Your task to perform on an android device: open app "Reddit" (install if not already installed) Image 0: 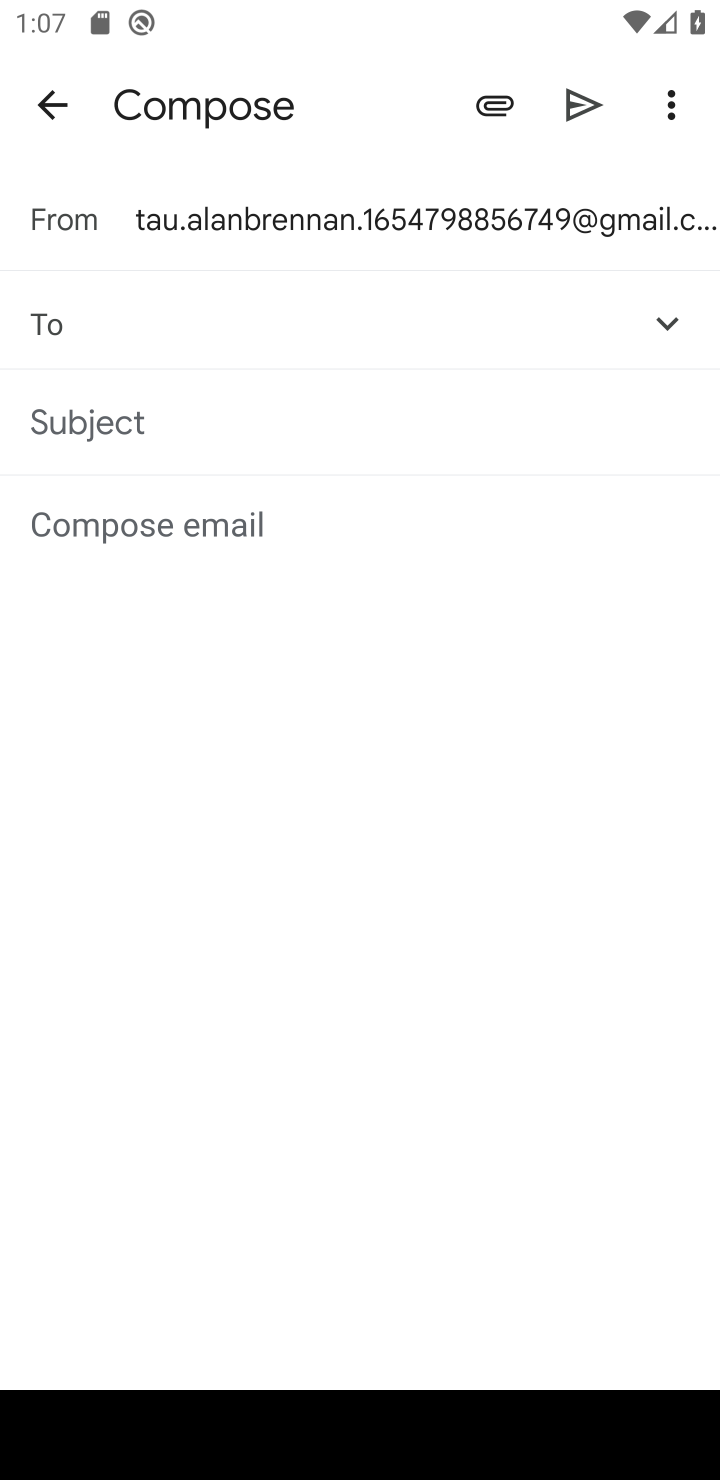
Step 0: press home button
Your task to perform on an android device: open app "Reddit" (install if not already installed) Image 1: 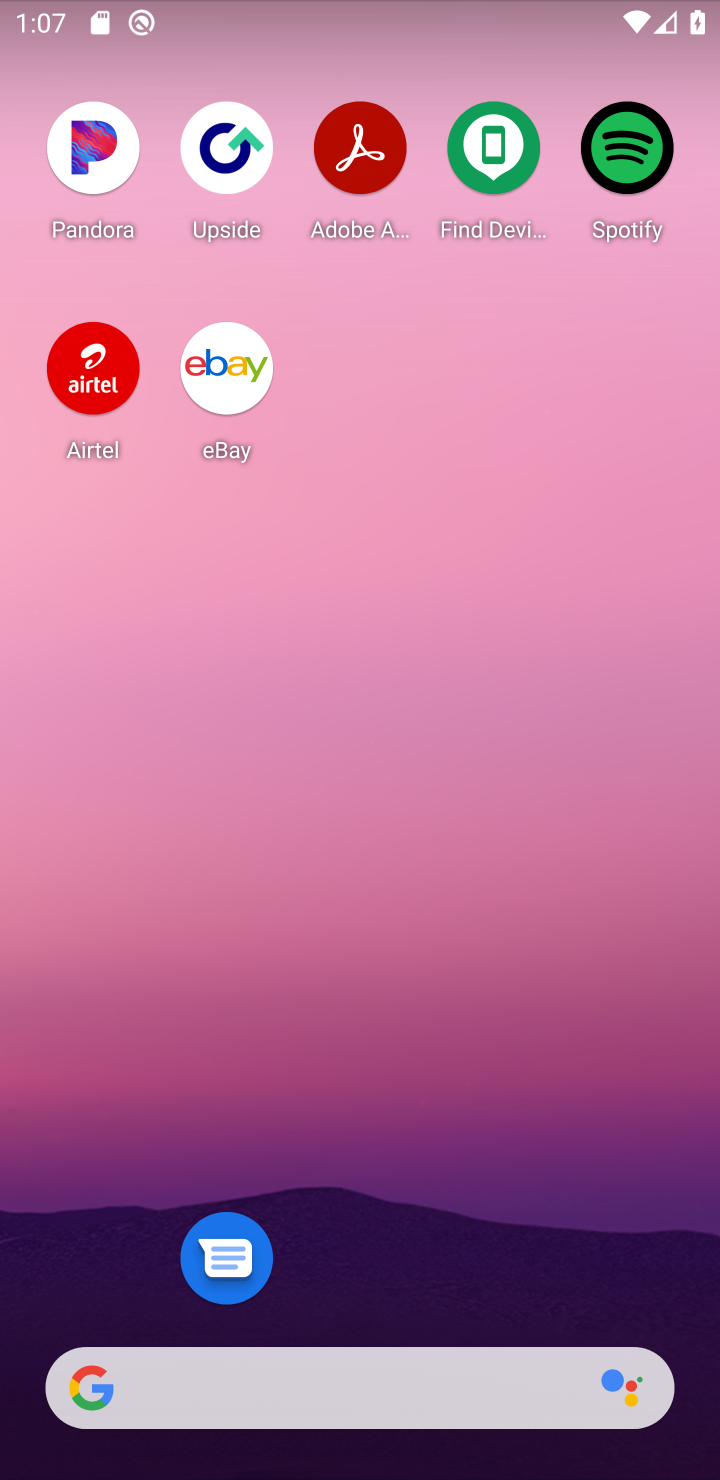
Step 1: drag from (122, 465) to (619, 478)
Your task to perform on an android device: open app "Reddit" (install if not already installed) Image 2: 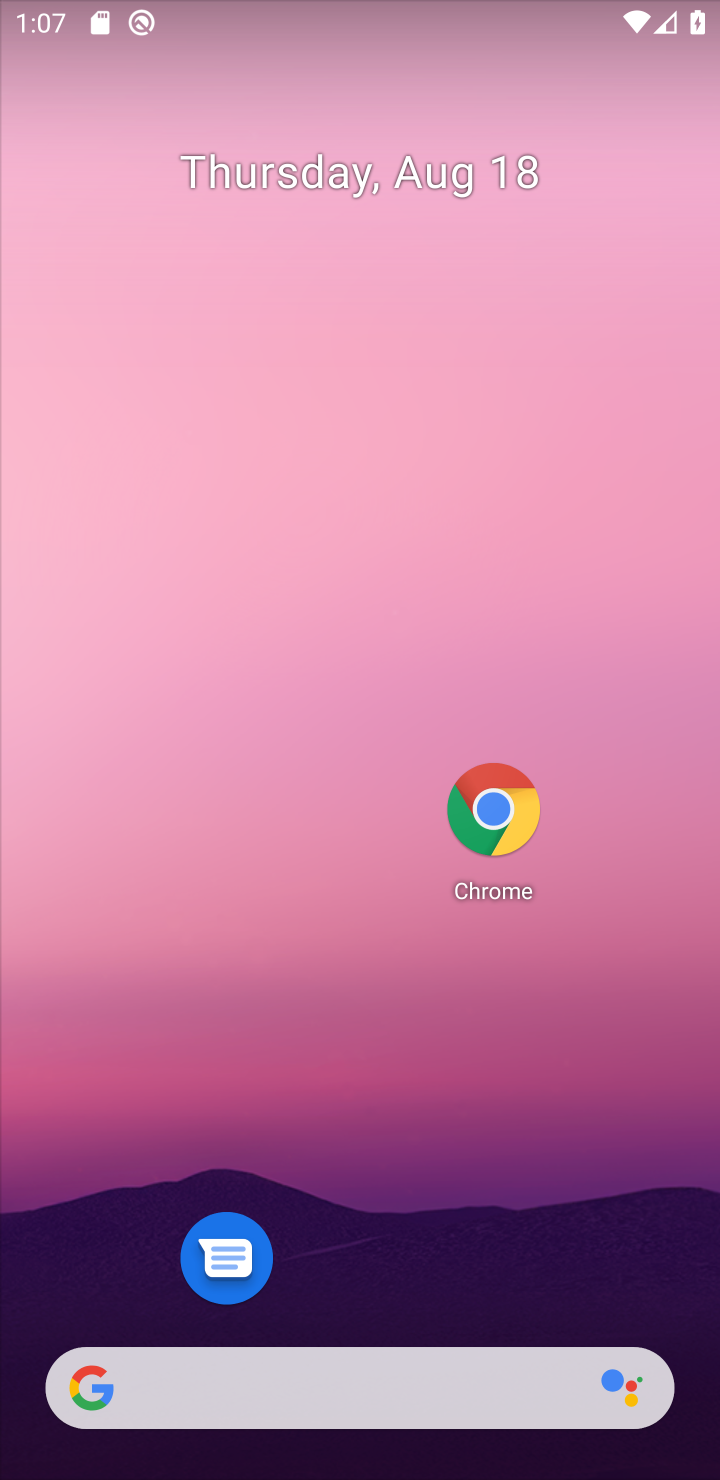
Step 2: drag from (462, 1329) to (443, 407)
Your task to perform on an android device: open app "Reddit" (install if not already installed) Image 3: 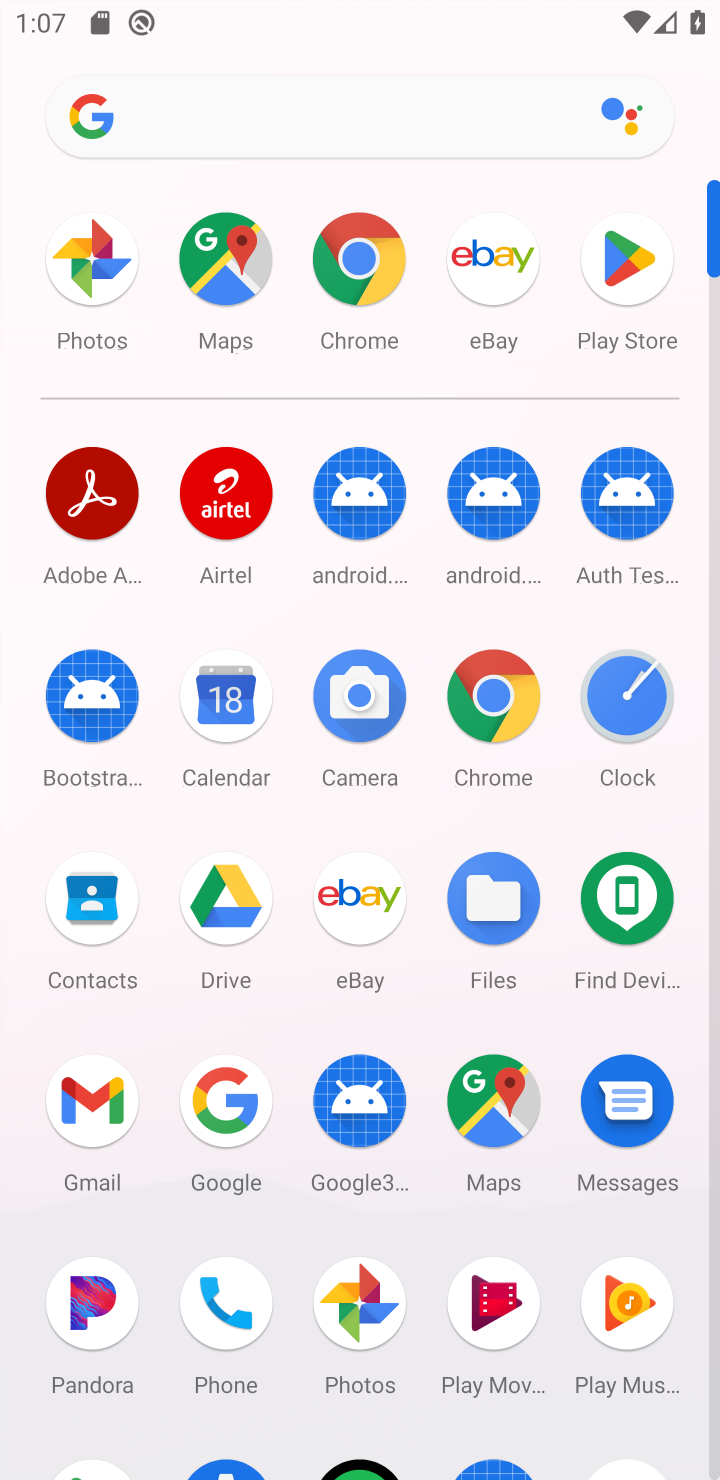
Step 3: click (644, 247)
Your task to perform on an android device: open app "Reddit" (install if not already installed) Image 4: 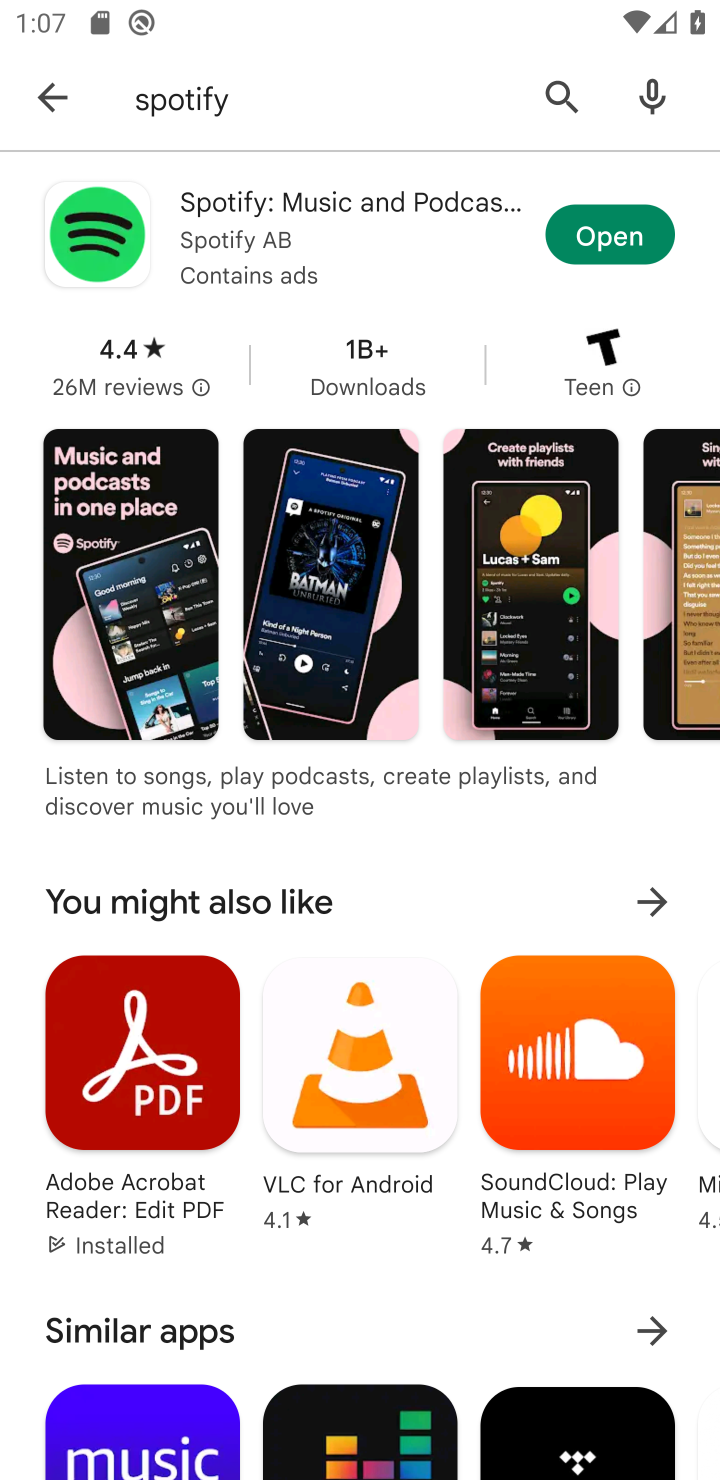
Step 4: click (65, 108)
Your task to perform on an android device: open app "Reddit" (install if not already installed) Image 5: 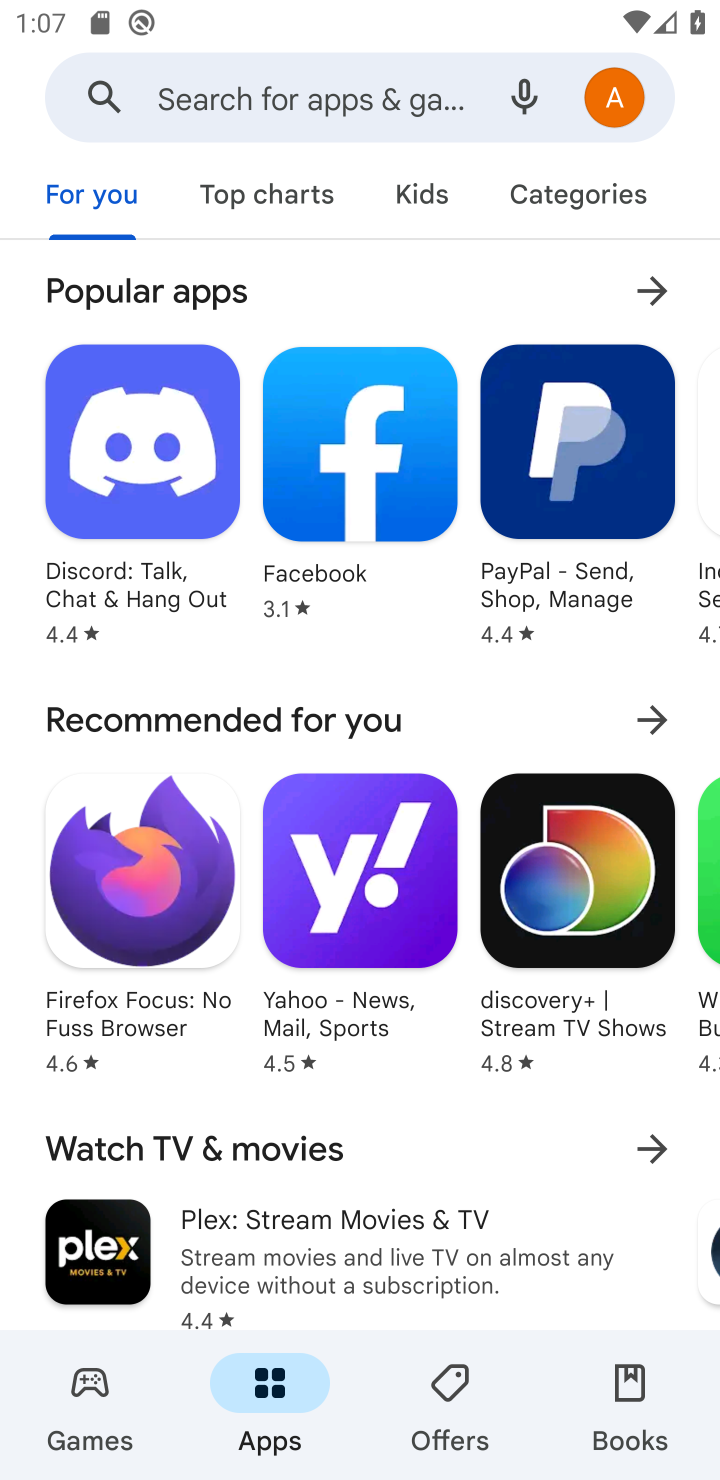
Step 5: click (386, 100)
Your task to perform on an android device: open app "Reddit" (install if not already installed) Image 6: 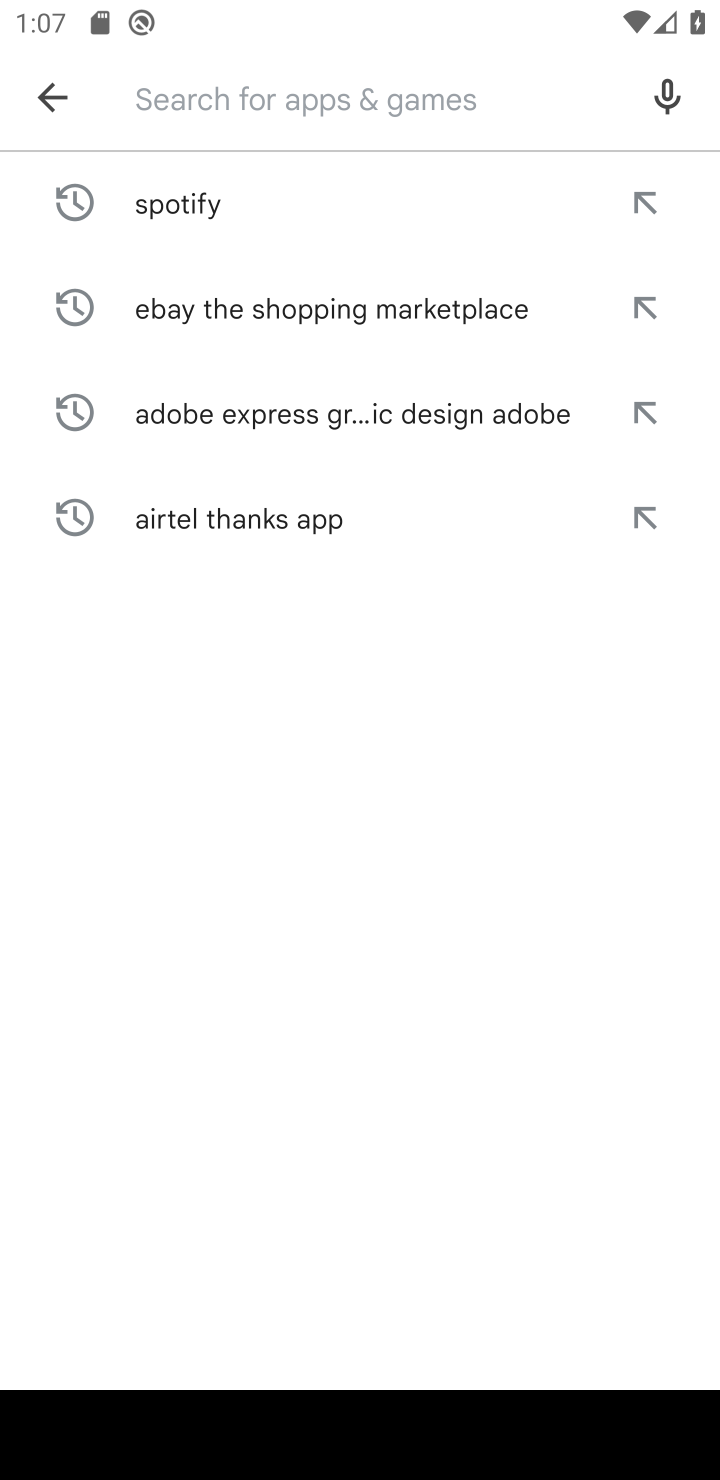
Step 6: type "Reddit "
Your task to perform on an android device: open app "Reddit" (install if not already installed) Image 7: 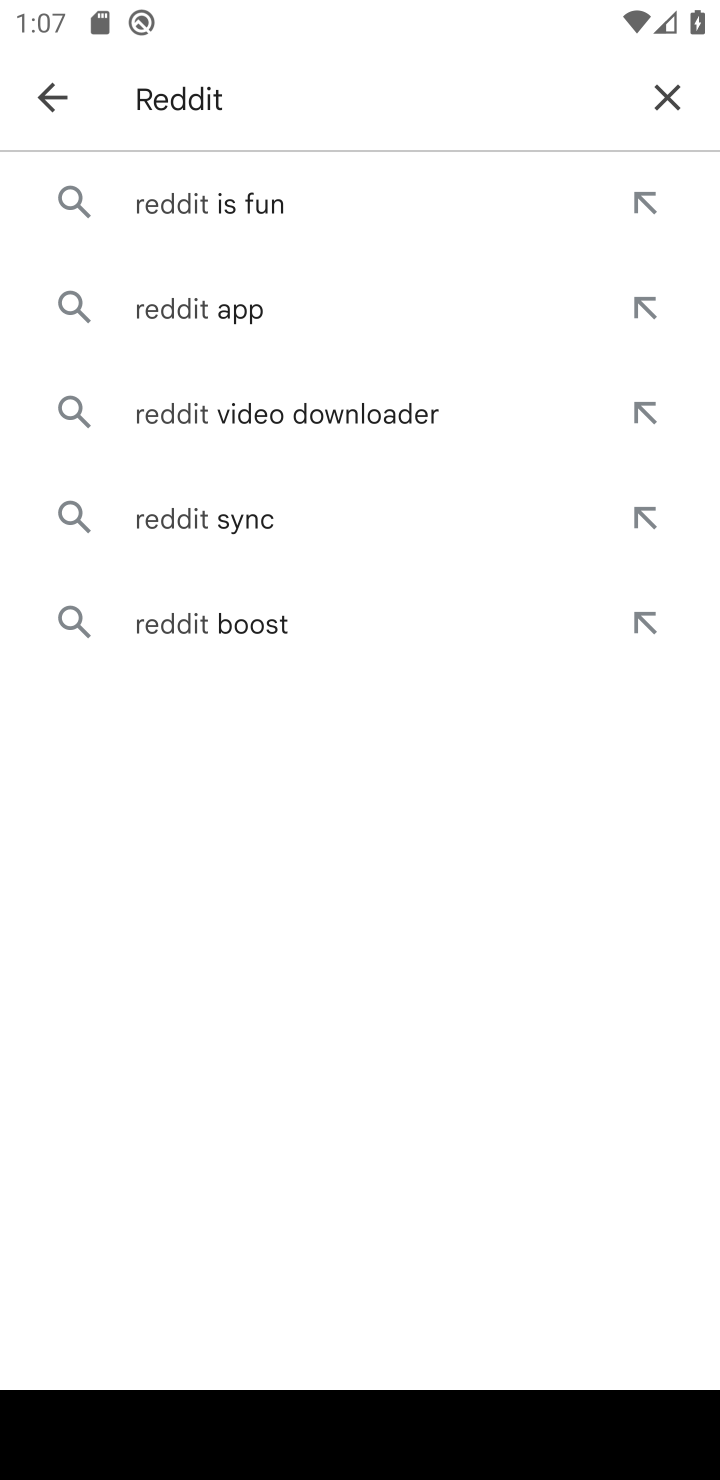
Step 7: click (231, 307)
Your task to perform on an android device: open app "Reddit" (install if not already installed) Image 8: 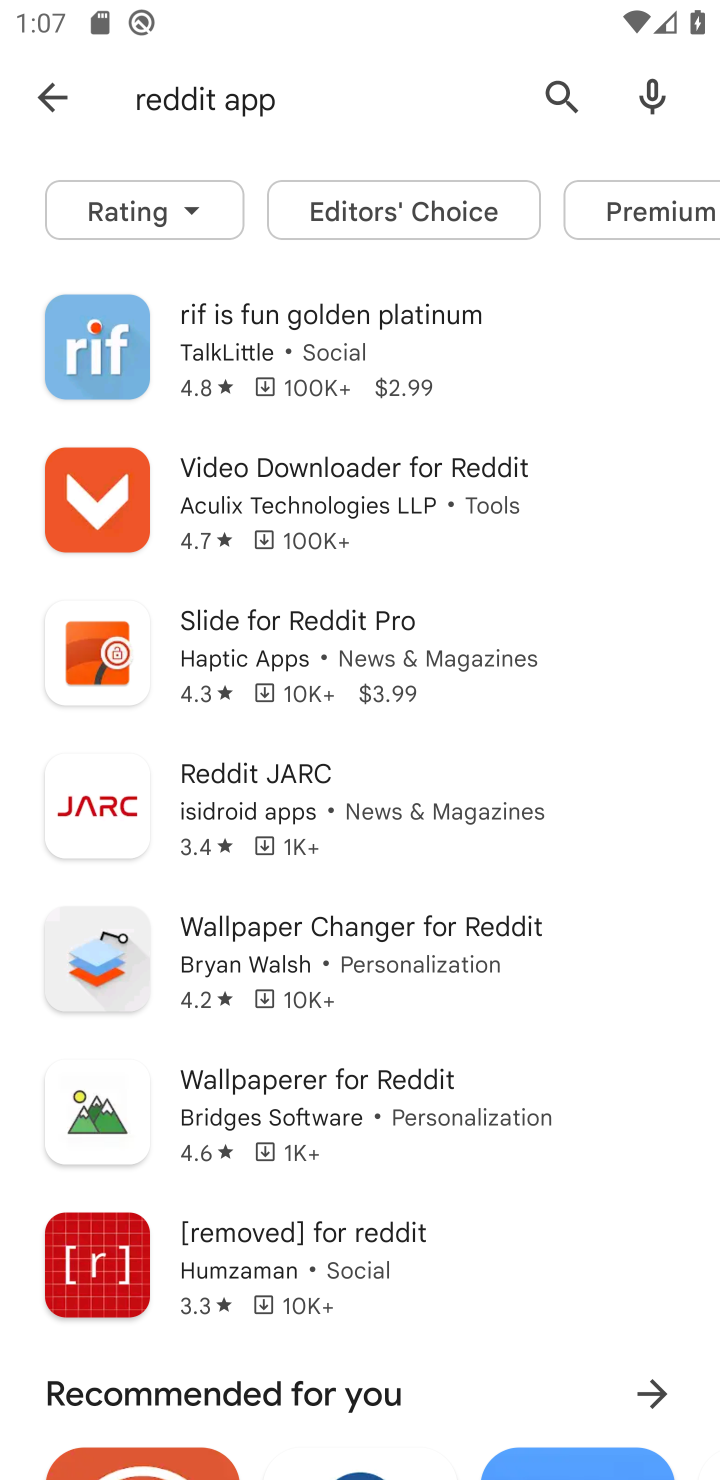
Step 8: drag from (321, 1082) to (396, 430)
Your task to perform on an android device: open app "Reddit" (install if not already installed) Image 9: 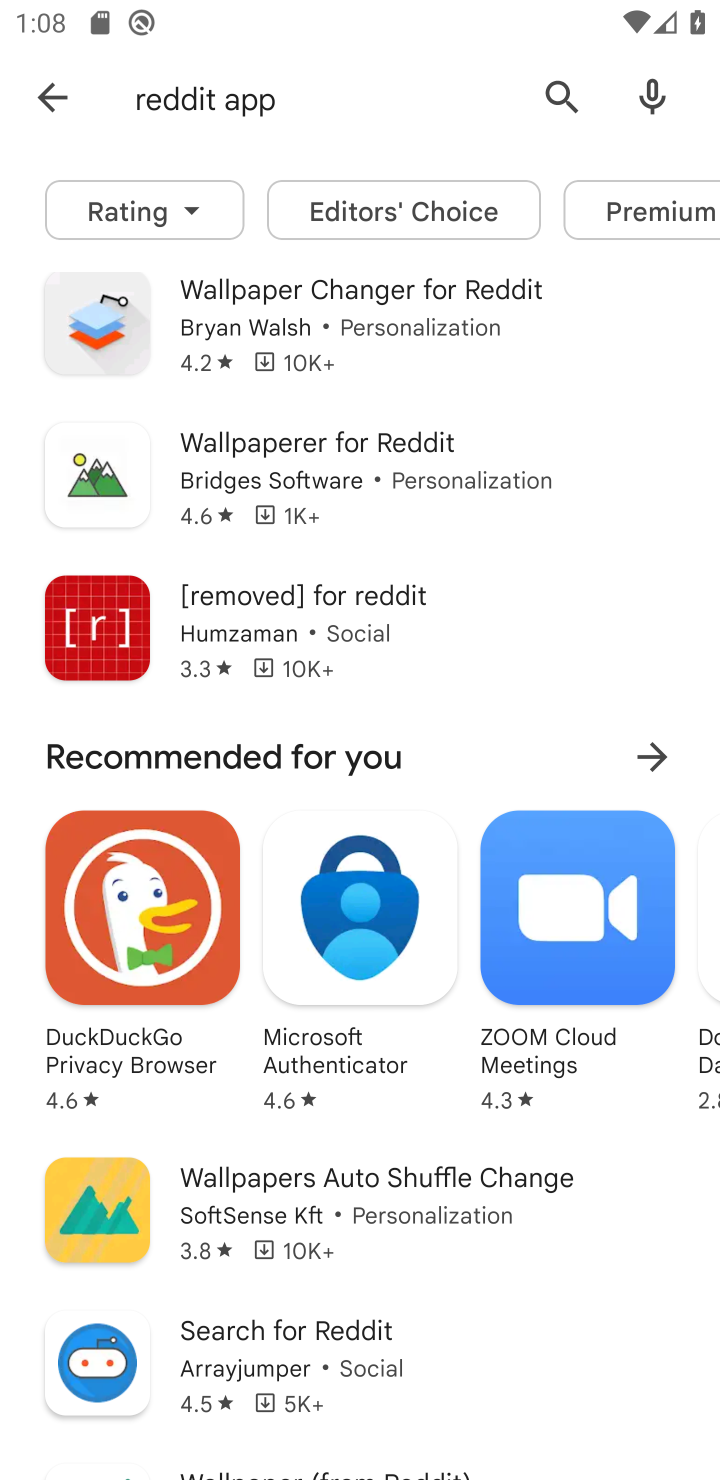
Step 9: drag from (346, 398) to (346, 722)
Your task to perform on an android device: open app "Reddit" (install if not already installed) Image 10: 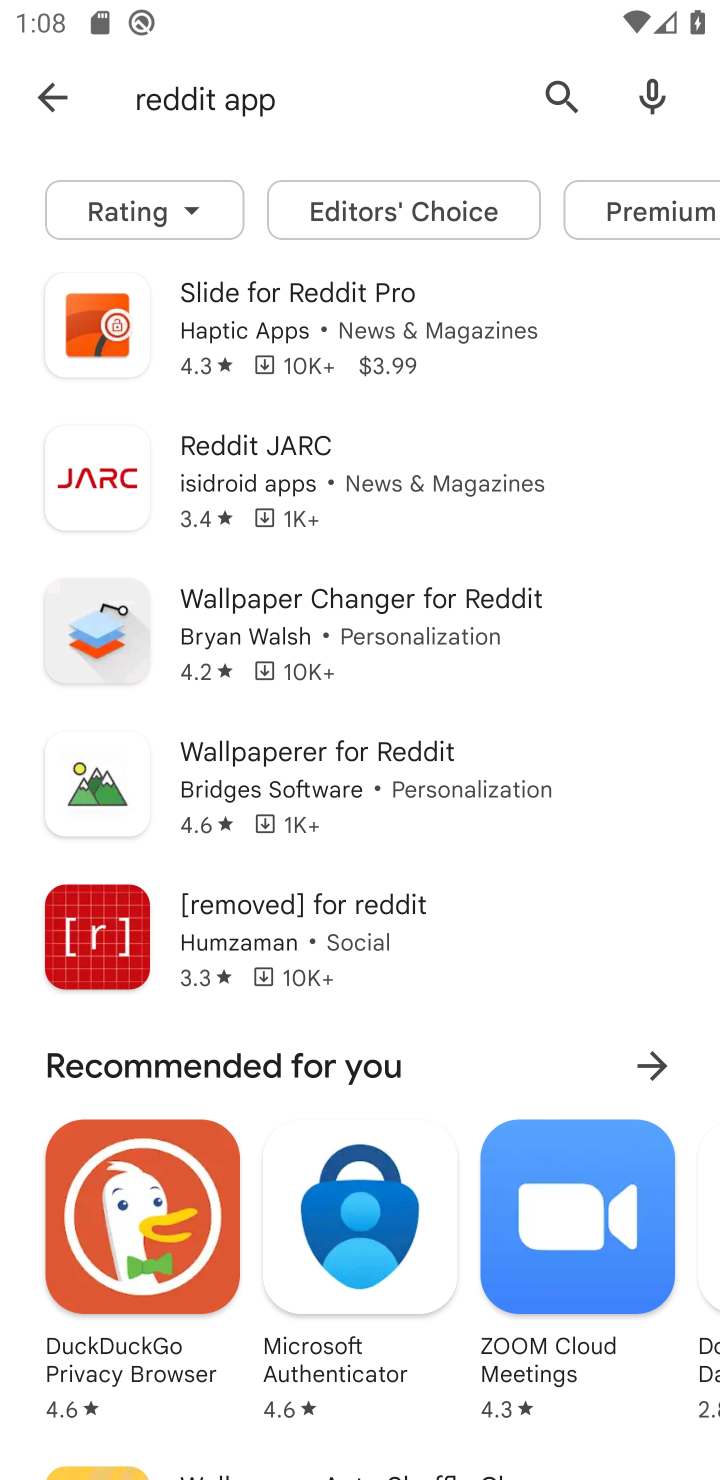
Step 10: click (282, 480)
Your task to perform on an android device: open app "Reddit" (install if not already installed) Image 11: 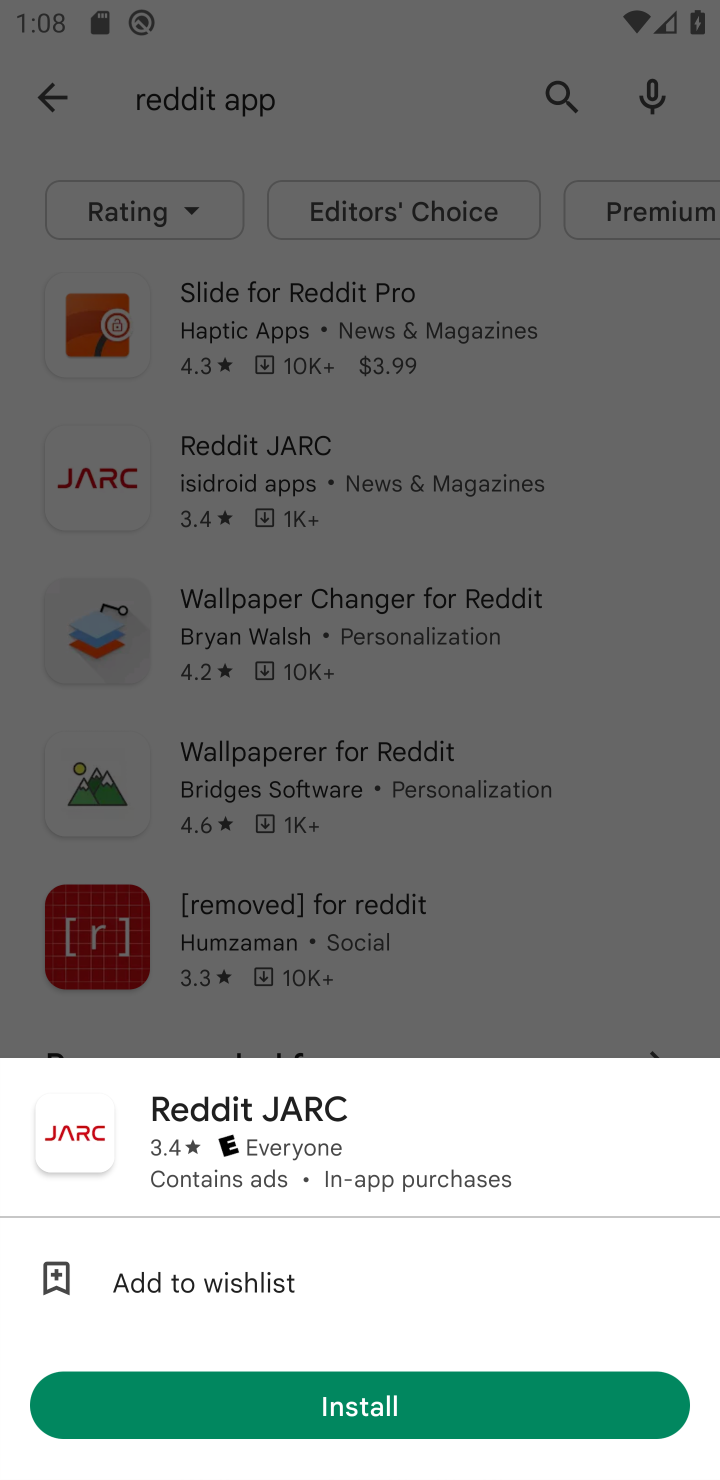
Step 11: click (541, 505)
Your task to perform on an android device: open app "Reddit" (install if not already installed) Image 12: 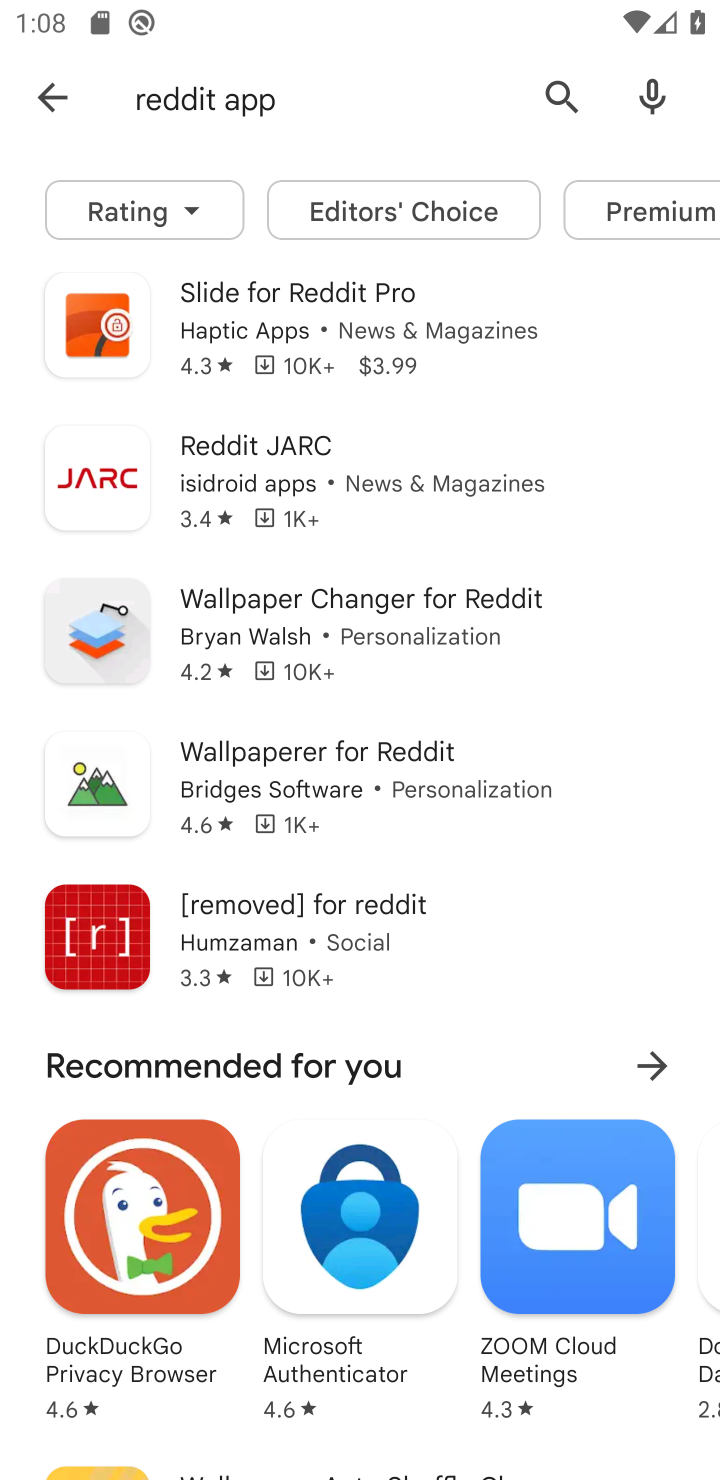
Step 12: task complete